Your task to perform on an android device: see creations saved in the google photos Image 0: 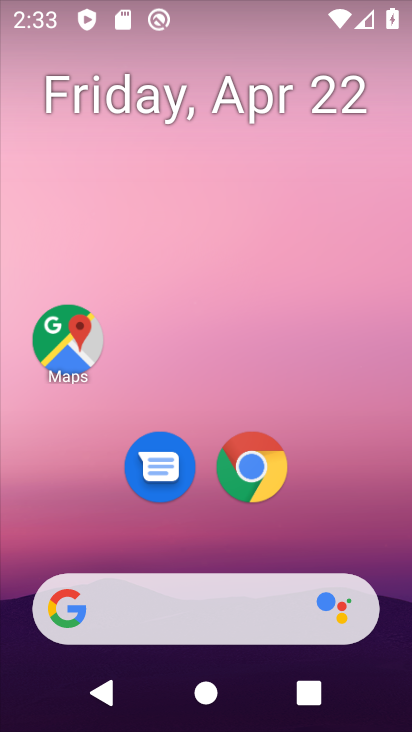
Step 0: drag from (349, 517) to (316, 132)
Your task to perform on an android device: see creations saved in the google photos Image 1: 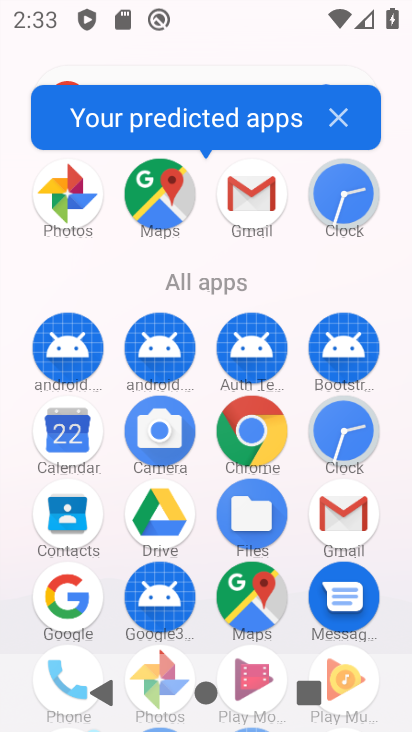
Step 1: click (80, 184)
Your task to perform on an android device: see creations saved in the google photos Image 2: 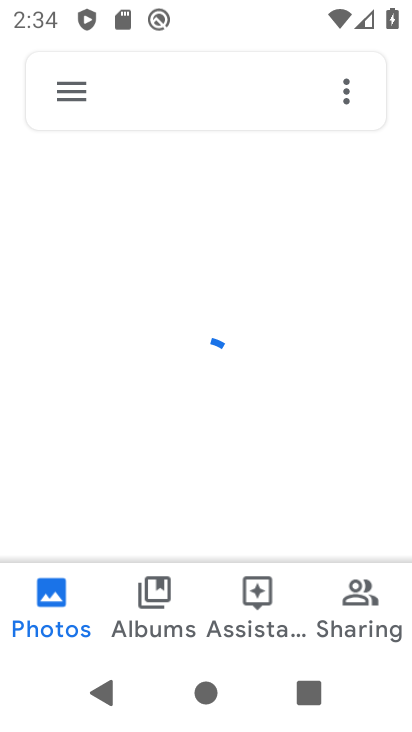
Step 2: click (137, 83)
Your task to perform on an android device: see creations saved in the google photos Image 3: 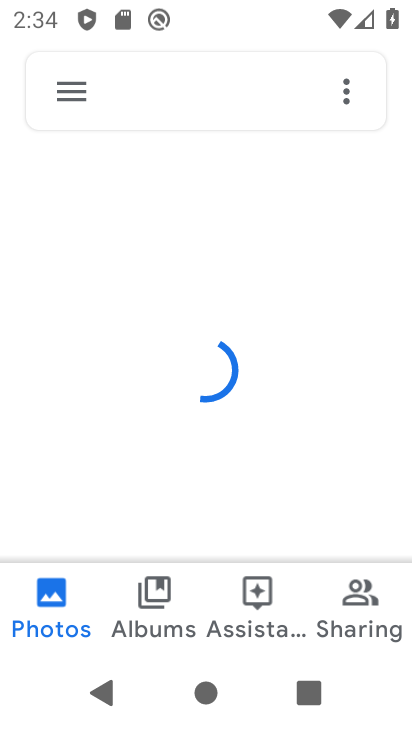
Step 3: click (181, 83)
Your task to perform on an android device: see creations saved in the google photos Image 4: 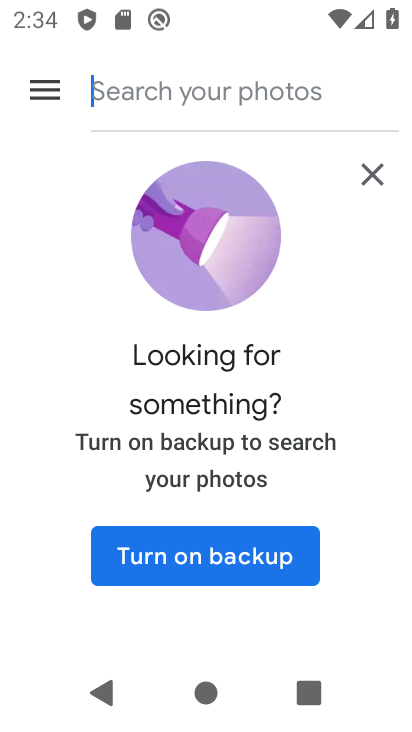
Step 4: click (148, 85)
Your task to perform on an android device: see creations saved in the google photos Image 5: 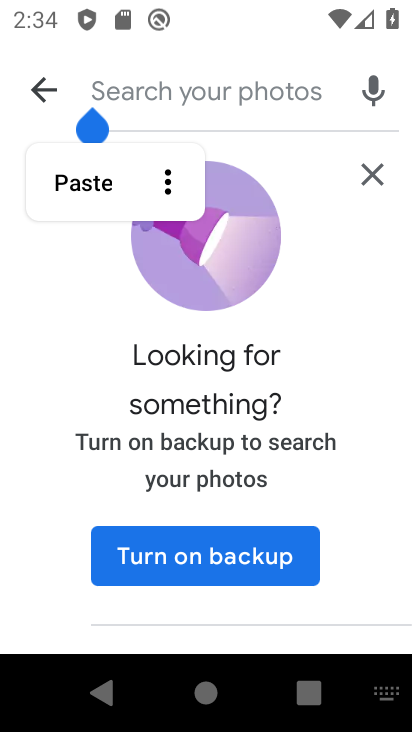
Step 5: click (183, 554)
Your task to perform on an android device: see creations saved in the google photos Image 6: 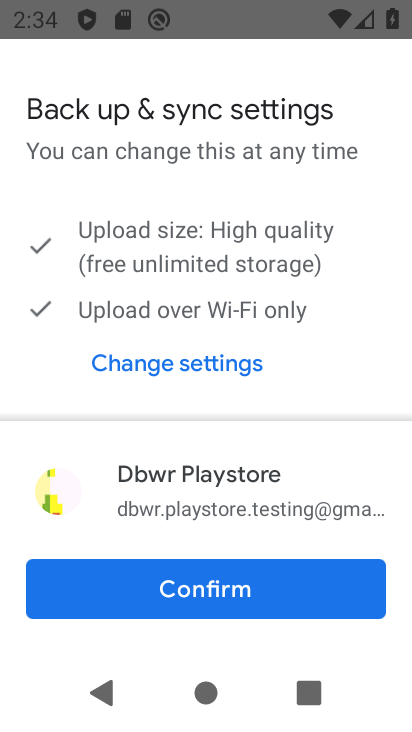
Step 6: click (197, 585)
Your task to perform on an android device: see creations saved in the google photos Image 7: 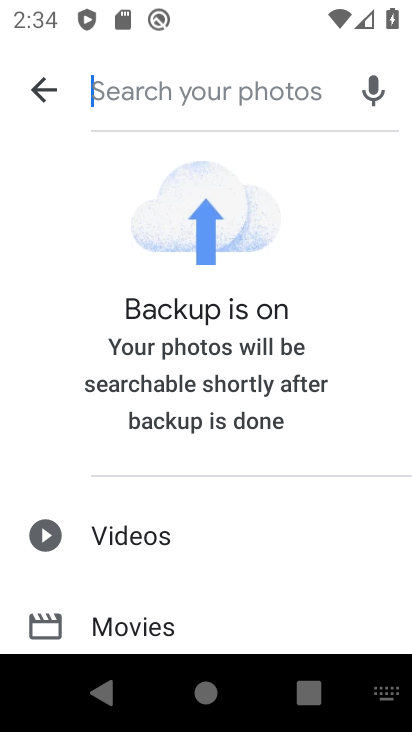
Step 7: drag from (193, 599) to (168, 144)
Your task to perform on an android device: see creations saved in the google photos Image 8: 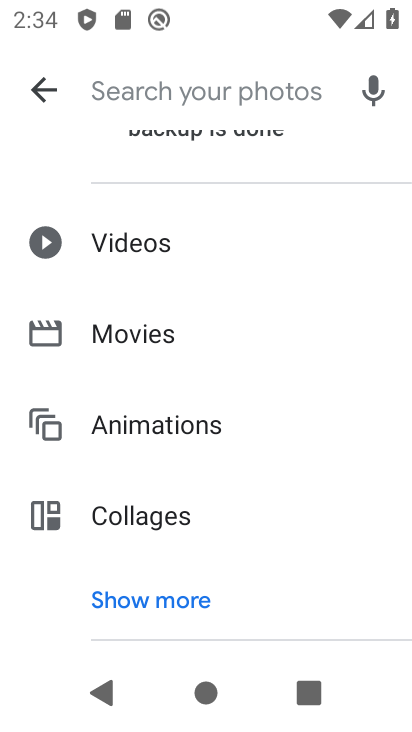
Step 8: click (159, 583)
Your task to perform on an android device: see creations saved in the google photos Image 9: 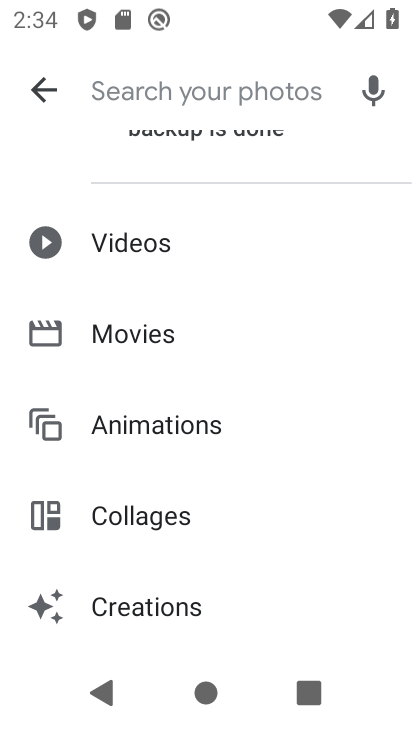
Step 9: click (159, 600)
Your task to perform on an android device: see creations saved in the google photos Image 10: 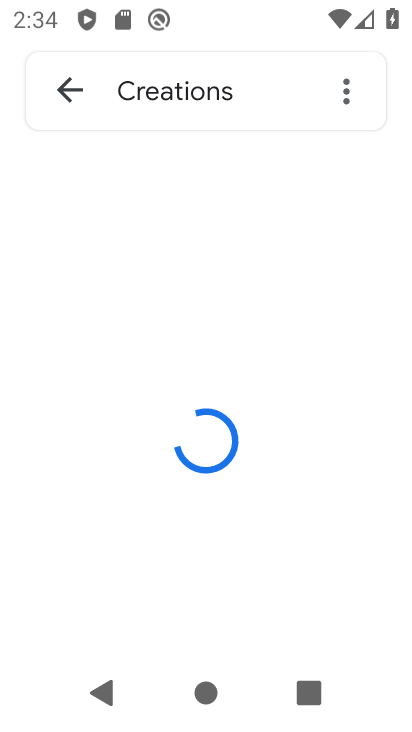
Step 10: click (267, 393)
Your task to perform on an android device: see creations saved in the google photos Image 11: 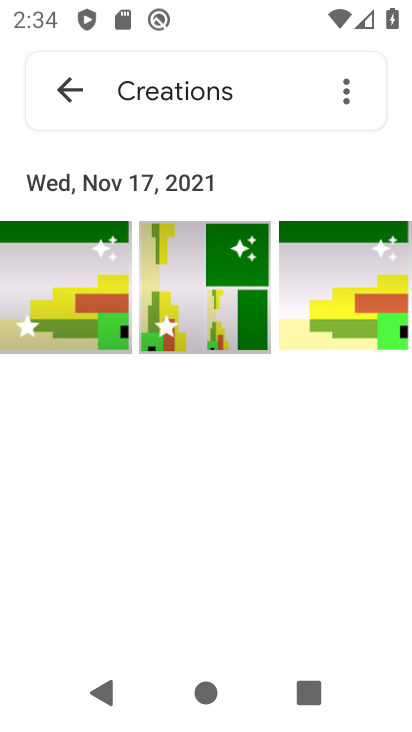
Step 11: task complete